Your task to perform on an android device: What's the weather going to be this weekend? Image 0: 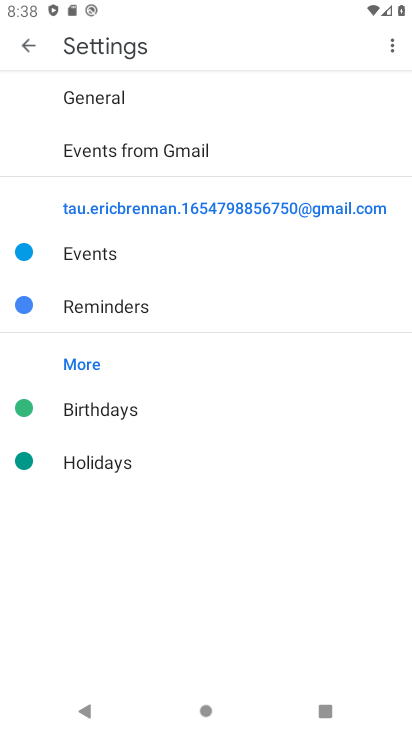
Step 0: press home button
Your task to perform on an android device: What's the weather going to be this weekend? Image 1: 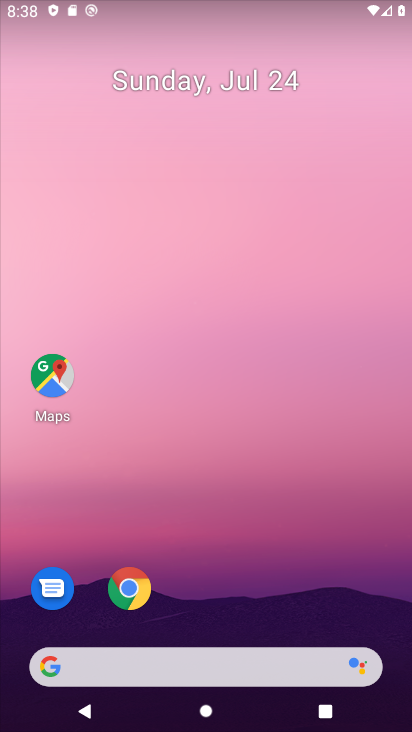
Step 1: drag from (88, 715) to (8, 652)
Your task to perform on an android device: What's the weather going to be this weekend? Image 2: 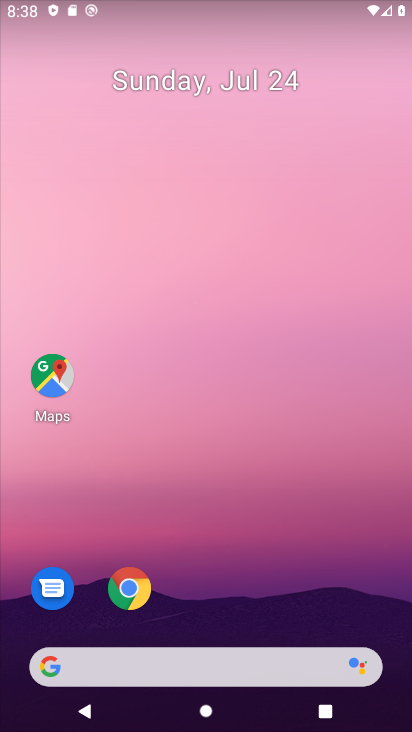
Step 2: click (151, 669)
Your task to perform on an android device: What's the weather going to be this weekend? Image 3: 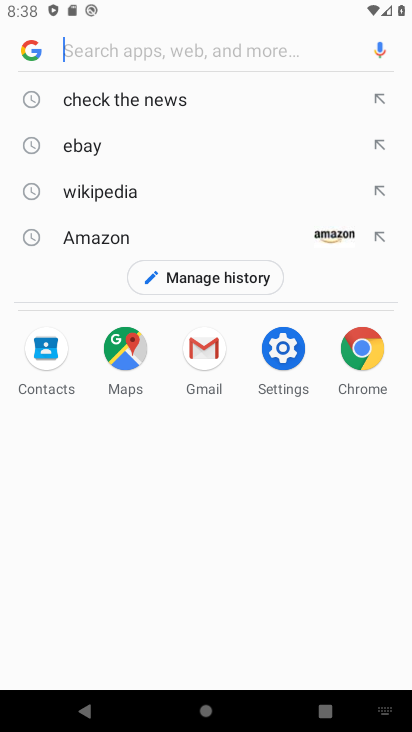
Step 3: press enter
Your task to perform on an android device: What's the weather going to be this weekend? Image 4: 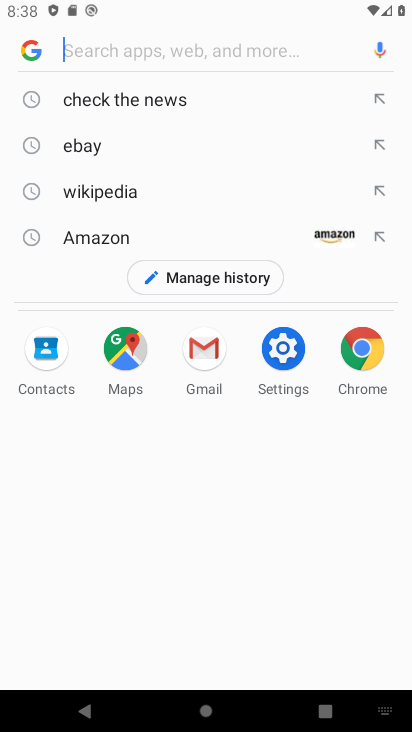
Step 4: type " What's the weather going to be this weekend?"
Your task to perform on an android device: What's the weather going to be this weekend? Image 5: 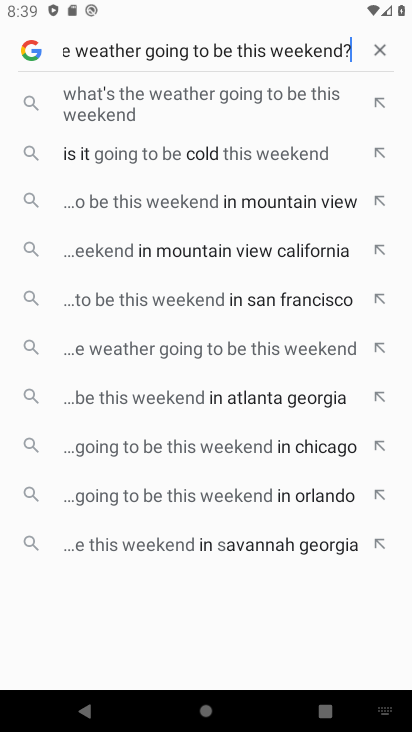
Step 5: press enter
Your task to perform on an android device: What's the weather going to be this weekend? Image 6: 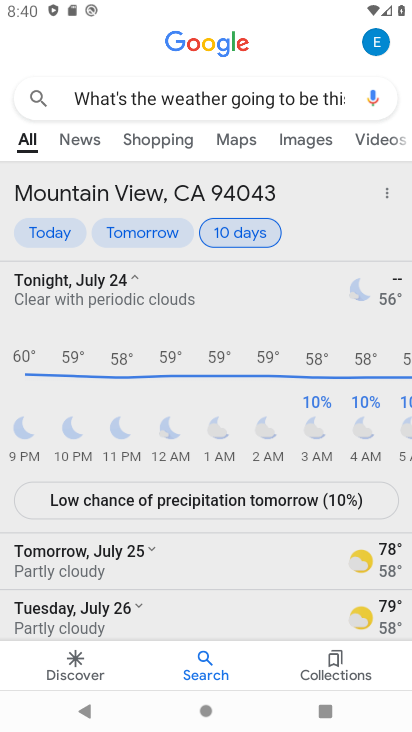
Step 6: task complete